Your task to perform on an android device: Check the news Image 0: 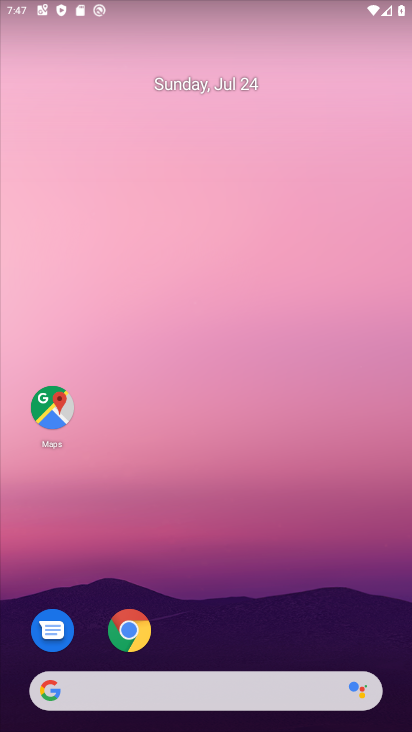
Step 0: drag from (232, 626) to (218, 172)
Your task to perform on an android device: Check the news Image 1: 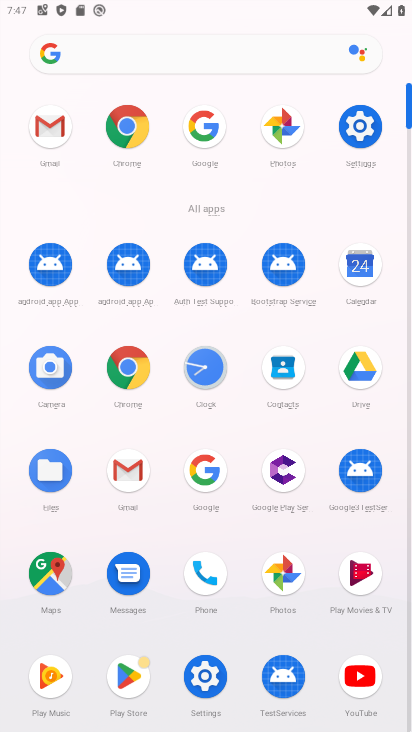
Step 1: click (193, 140)
Your task to perform on an android device: Check the news Image 2: 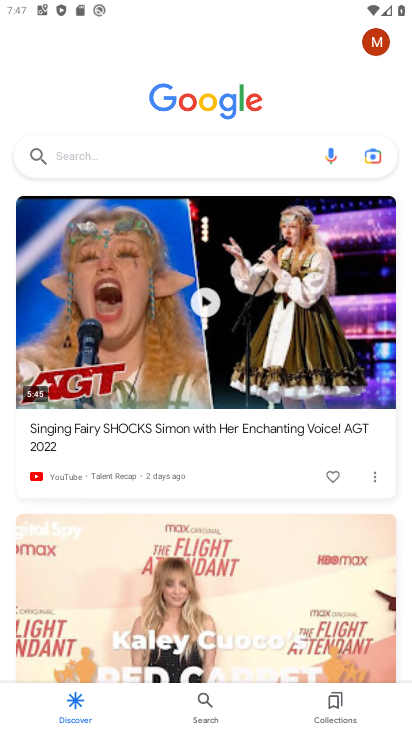
Step 2: click (157, 170)
Your task to perform on an android device: Check the news Image 3: 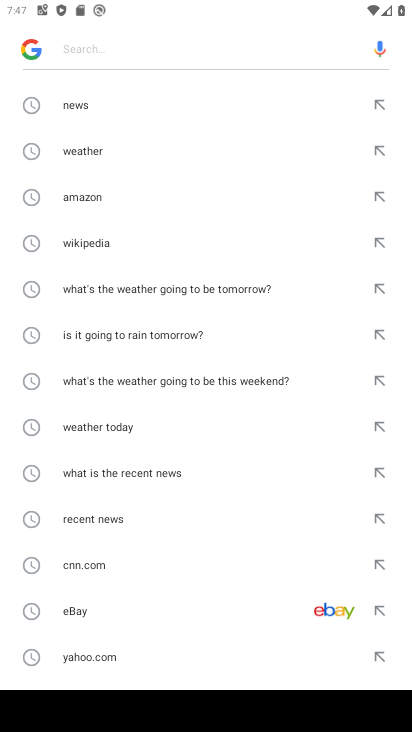
Step 3: click (114, 106)
Your task to perform on an android device: Check the news Image 4: 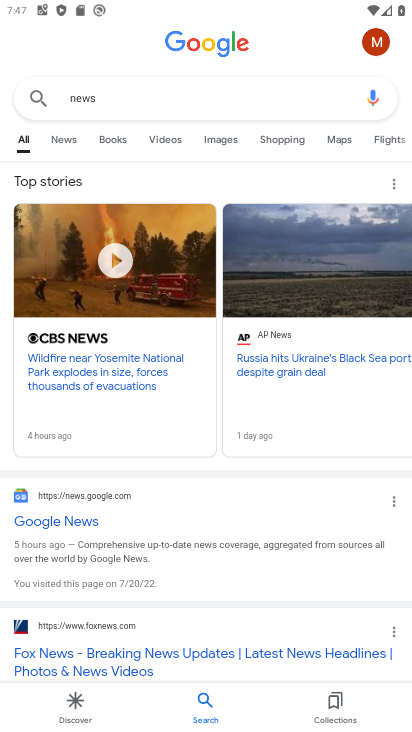
Step 4: click (60, 145)
Your task to perform on an android device: Check the news Image 5: 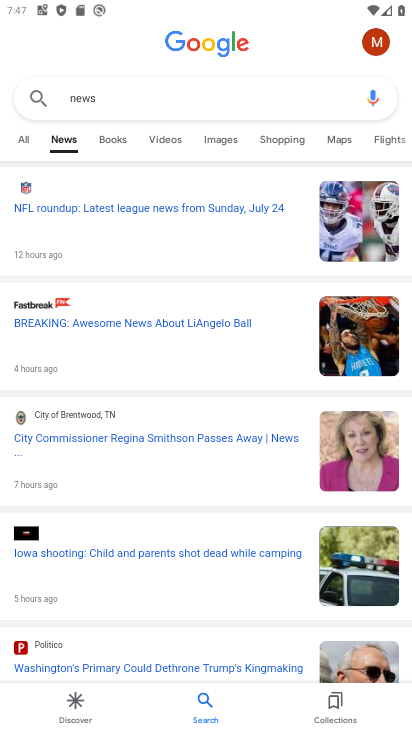
Step 5: task complete